Your task to perform on an android device: turn on javascript in the chrome app Image 0: 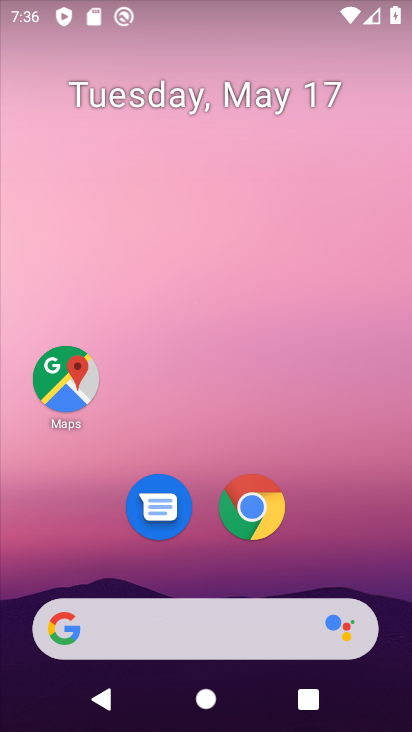
Step 0: click (255, 516)
Your task to perform on an android device: turn on javascript in the chrome app Image 1: 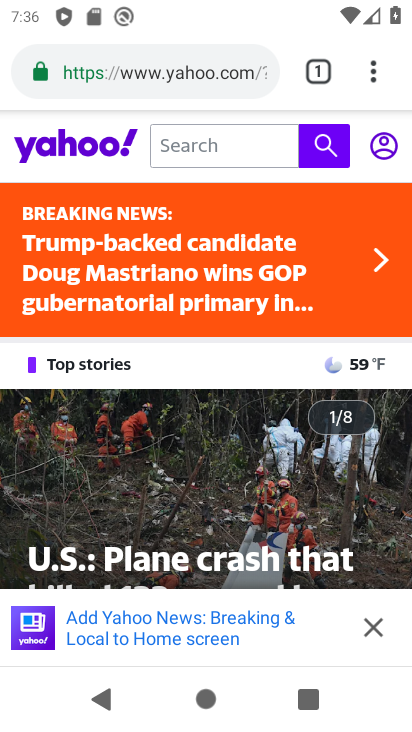
Step 1: click (370, 72)
Your task to perform on an android device: turn on javascript in the chrome app Image 2: 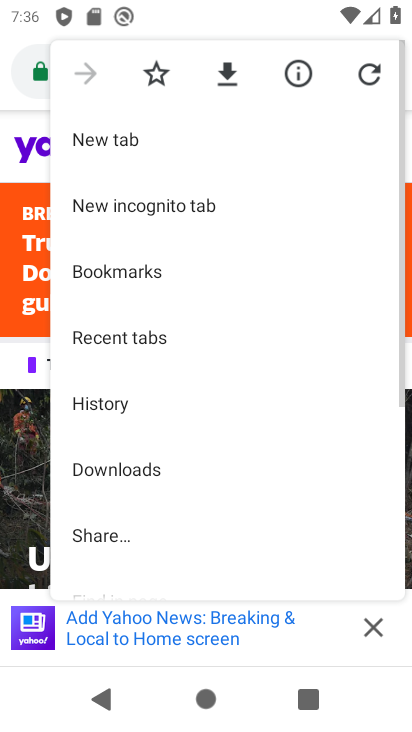
Step 2: drag from (181, 515) to (182, 122)
Your task to perform on an android device: turn on javascript in the chrome app Image 3: 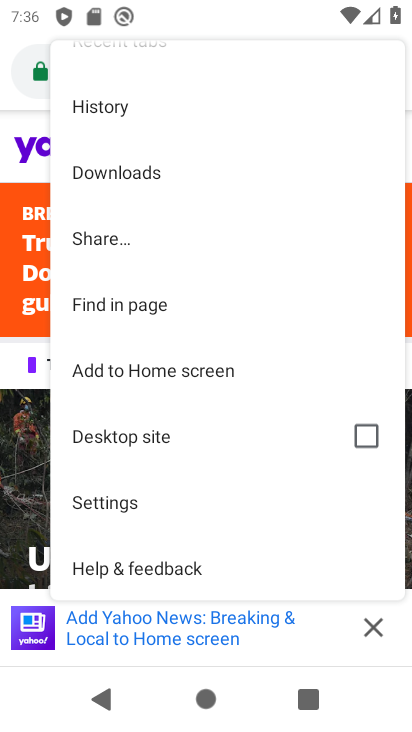
Step 3: click (111, 513)
Your task to perform on an android device: turn on javascript in the chrome app Image 4: 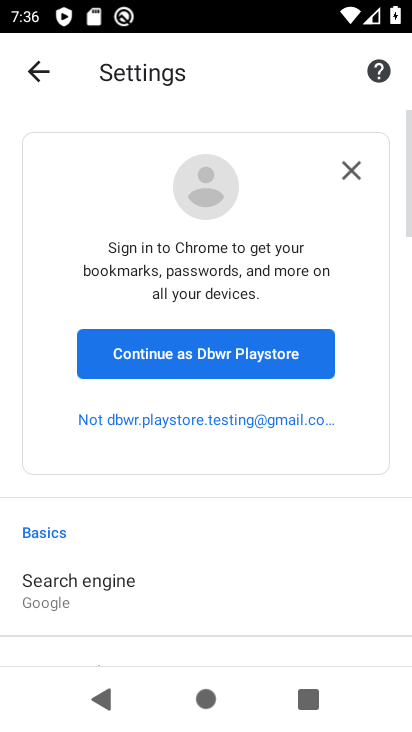
Step 4: drag from (185, 538) to (146, 38)
Your task to perform on an android device: turn on javascript in the chrome app Image 5: 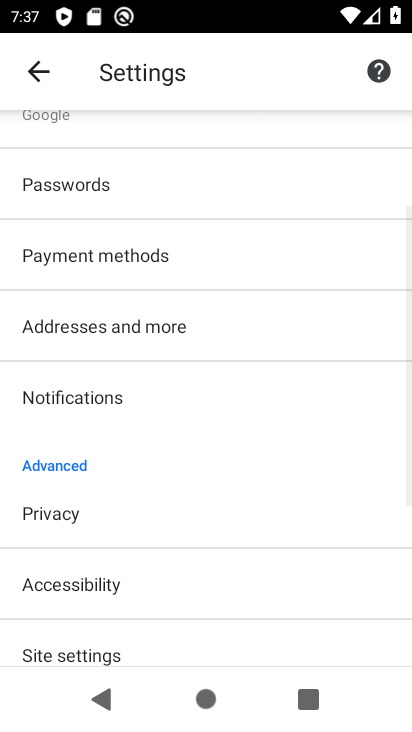
Step 5: drag from (162, 497) to (147, 197)
Your task to perform on an android device: turn on javascript in the chrome app Image 6: 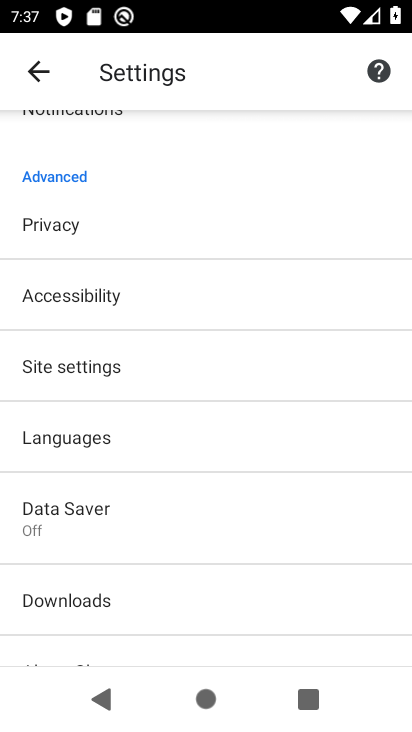
Step 6: click (75, 372)
Your task to perform on an android device: turn on javascript in the chrome app Image 7: 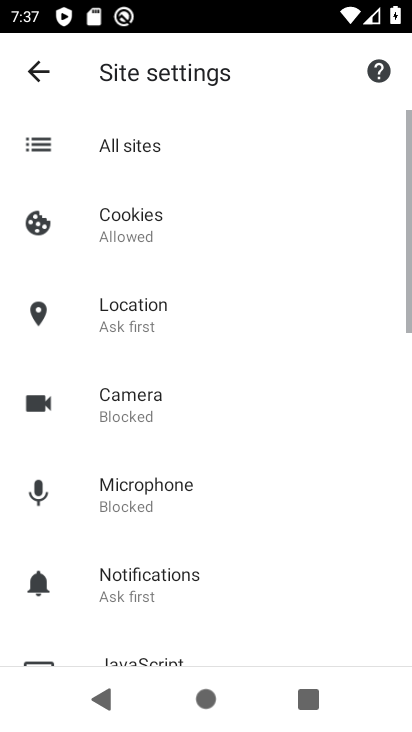
Step 7: drag from (260, 610) to (223, 162)
Your task to perform on an android device: turn on javascript in the chrome app Image 8: 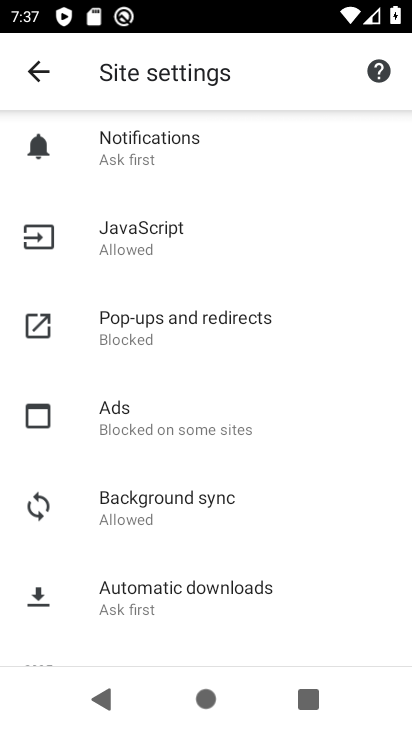
Step 8: click (124, 238)
Your task to perform on an android device: turn on javascript in the chrome app Image 9: 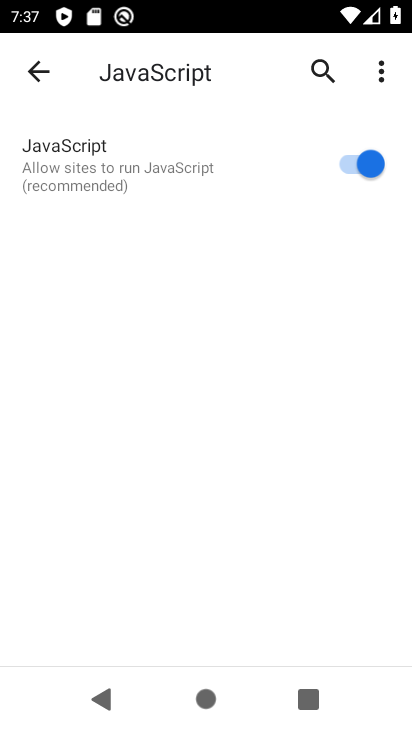
Step 9: task complete